Your task to perform on an android device: turn off data saver in the chrome app Image 0: 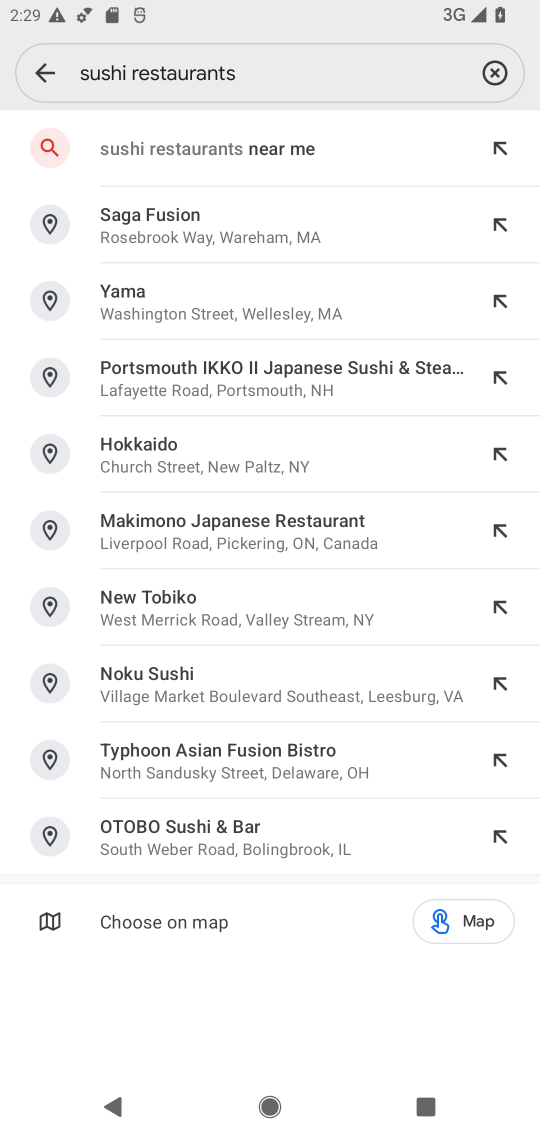
Step 0: press home button
Your task to perform on an android device: turn off data saver in the chrome app Image 1: 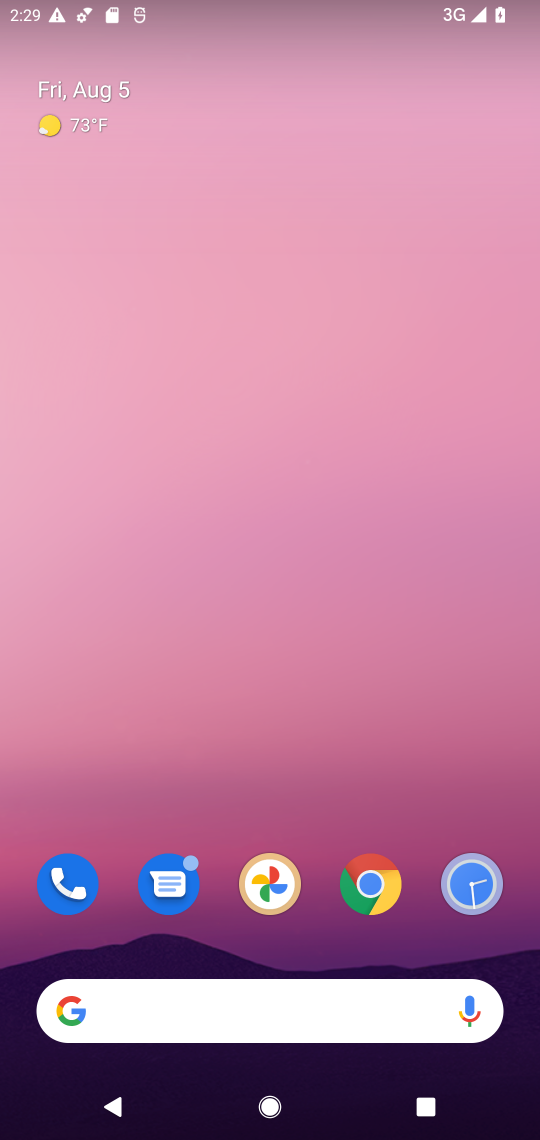
Step 1: drag from (489, 969) to (304, 28)
Your task to perform on an android device: turn off data saver in the chrome app Image 2: 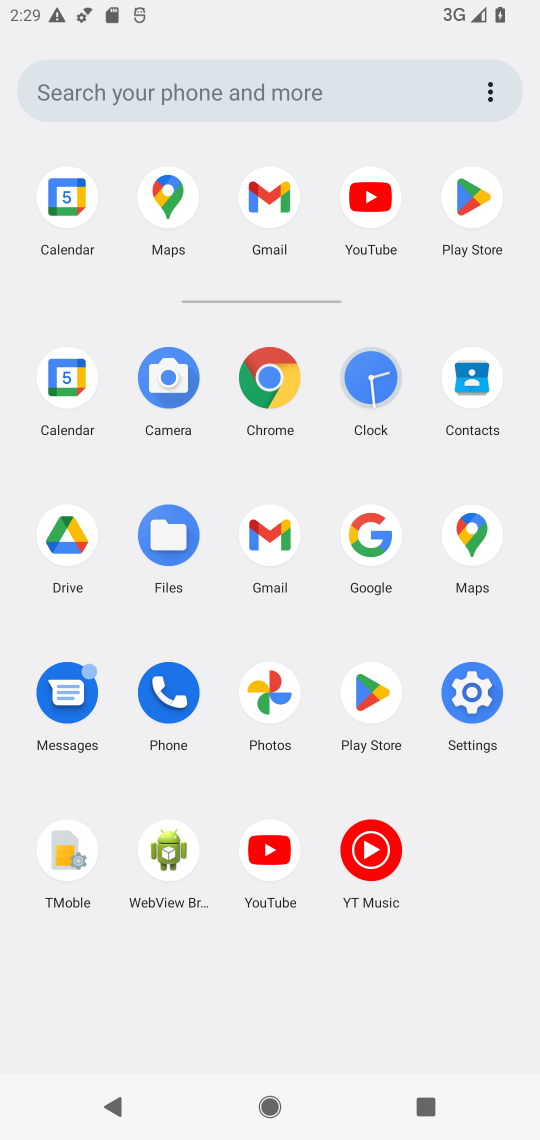
Step 2: click (291, 395)
Your task to perform on an android device: turn off data saver in the chrome app Image 3: 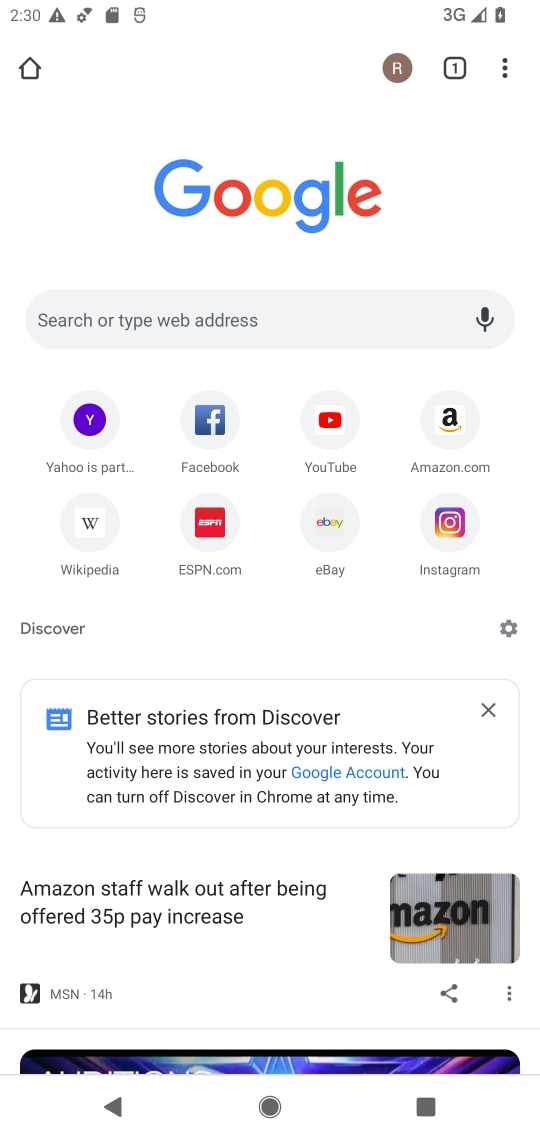
Step 3: click (505, 62)
Your task to perform on an android device: turn off data saver in the chrome app Image 4: 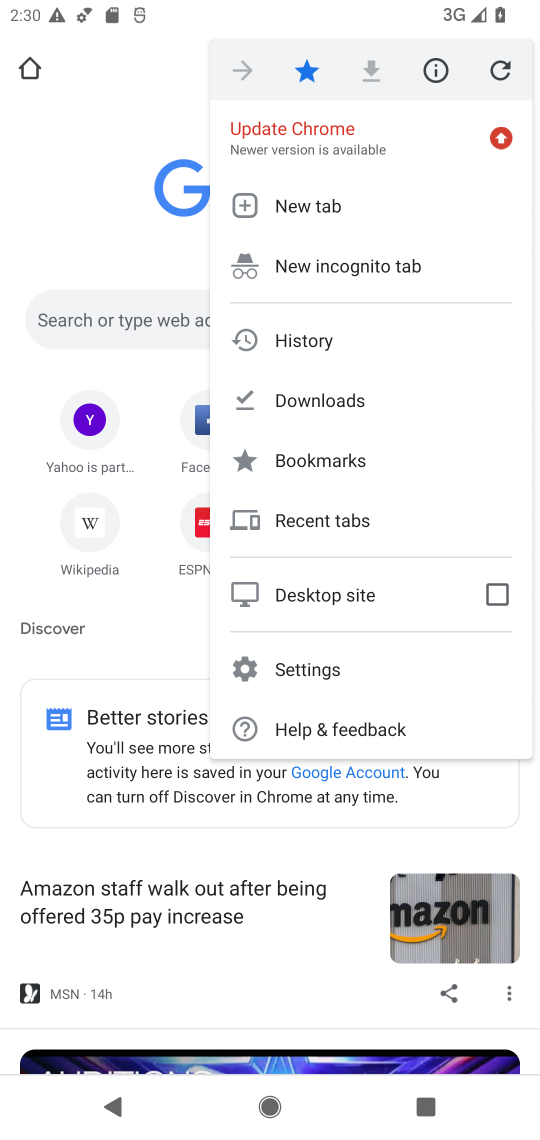
Step 4: click (287, 665)
Your task to perform on an android device: turn off data saver in the chrome app Image 5: 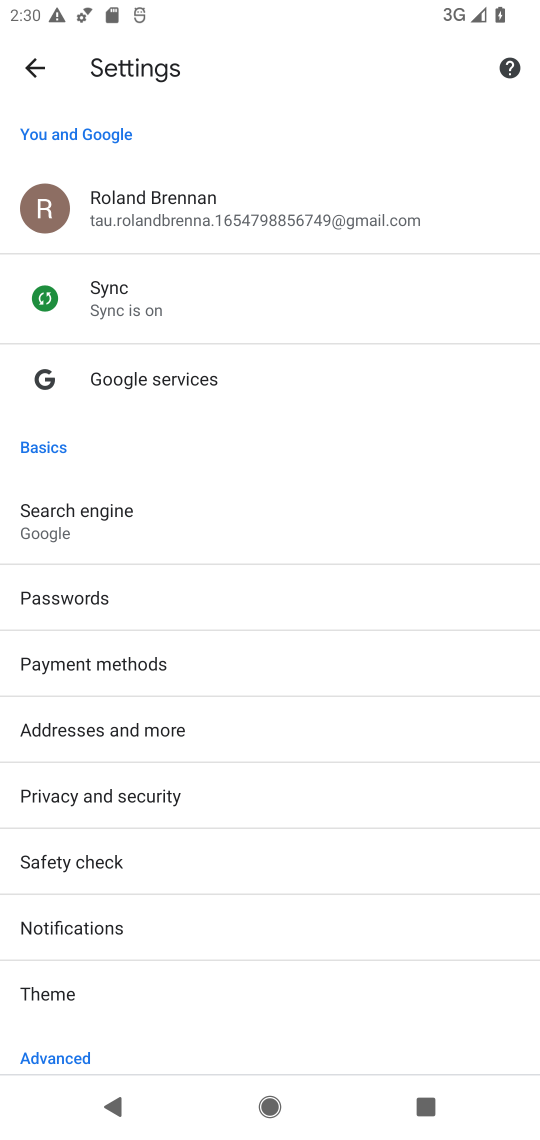
Step 5: drag from (168, 990) to (241, 142)
Your task to perform on an android device: turn off data saver in the chrome app Image 6: 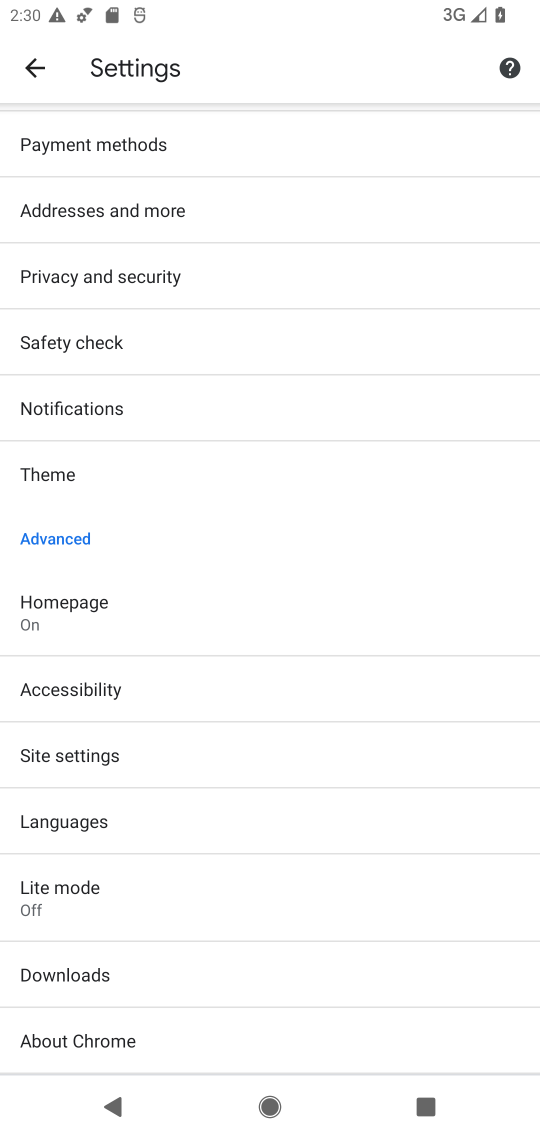
Step 6: click (92, 878)
Your task to perform on an android device: turn off data saver in the chrome app Image 7: 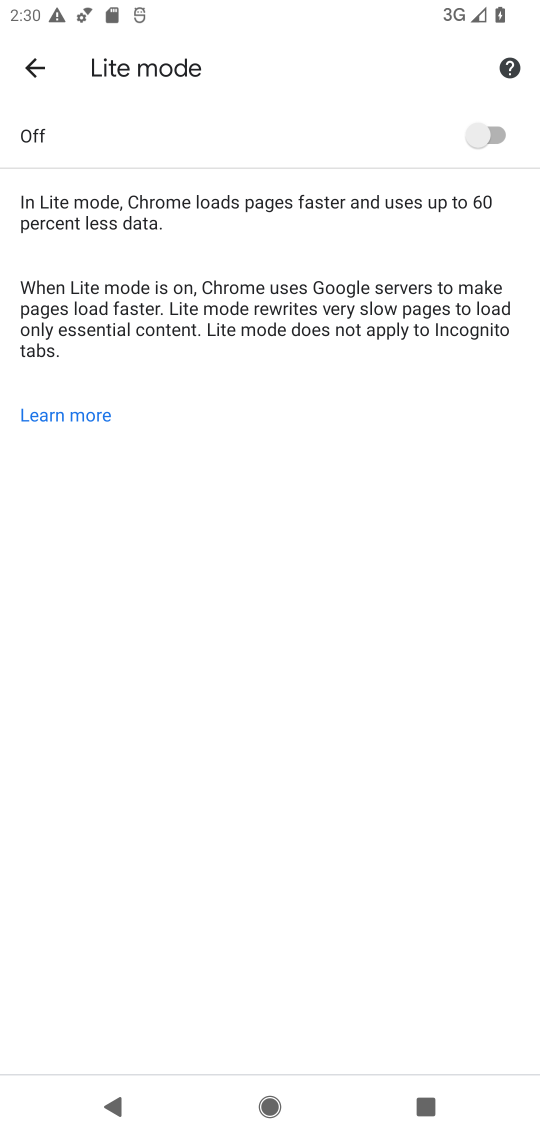
Step 7: task complete